Your task to perform on an android device: Open Google Chrome and open the bookmarks view Image 0: 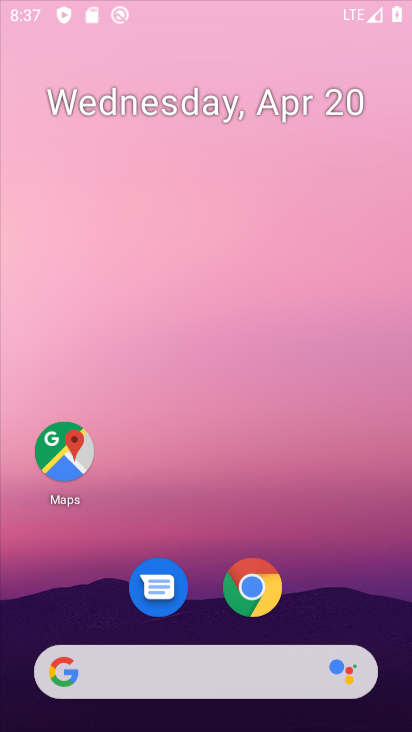
Step 0: drag from (357, 436) to (350, 253)
Your task to perform on an android device: Open Google Chrome and open the bookmarks view Image 1: 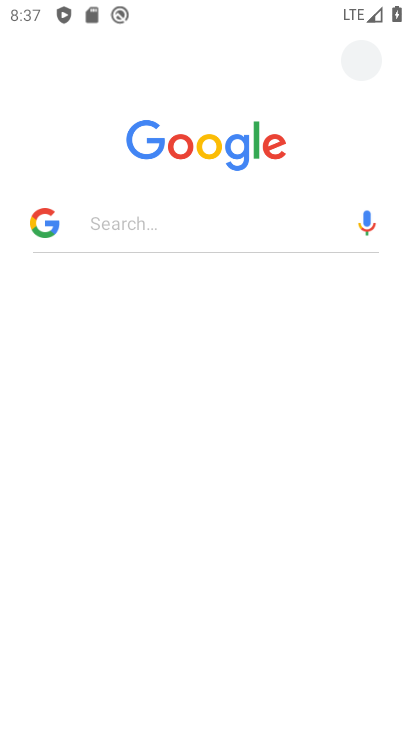
Step 1: press home button
Your task to perform on an android device: Open Google Chrome and open the bookmarks view Image 2: 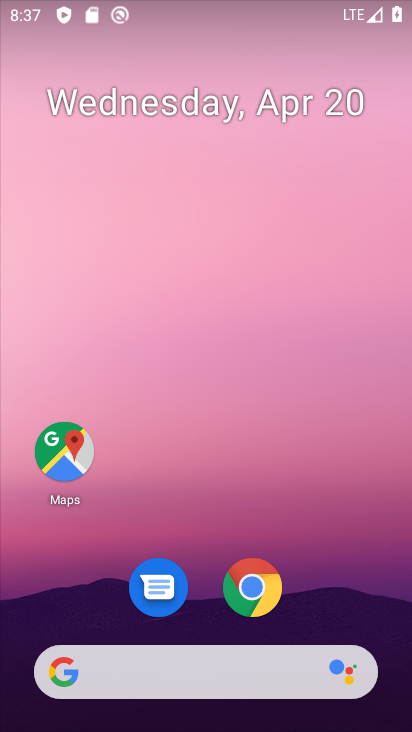
Step 2: drag from (347, 597) to (353, 249)
Your task to perform on an android device: Open Google Chrome and open the bookmarks view Image 3: 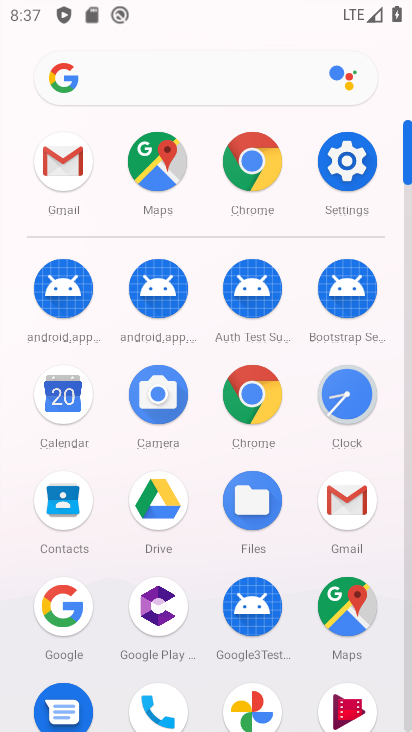
Step 3: click (260, 401)
Your task to perform on an android device: Open Google Chrome and open the bookmarks view Image 4: 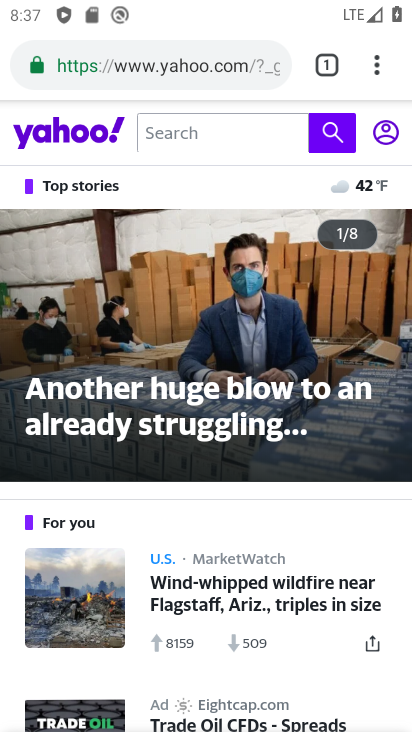
Step 4: click (378, 64)
Your task to perform on an android device: Open Google Chrome and open the bookmarks view Image 5: 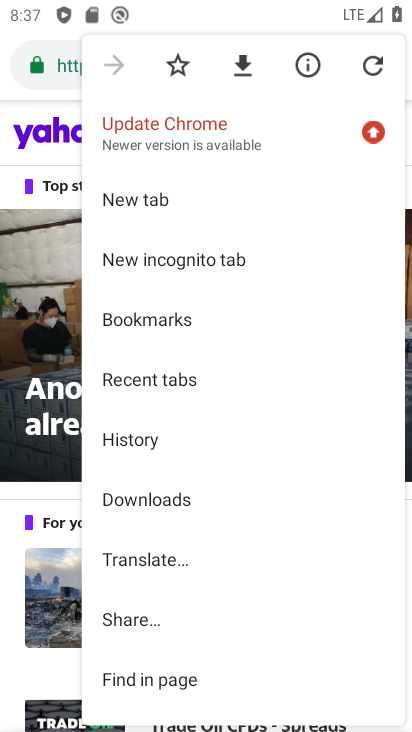
Step 5: drag from (362, 525) to (365, 394)
Your task to perform on an android device: Open Google Chrome and open the bookmarks view Image 6: 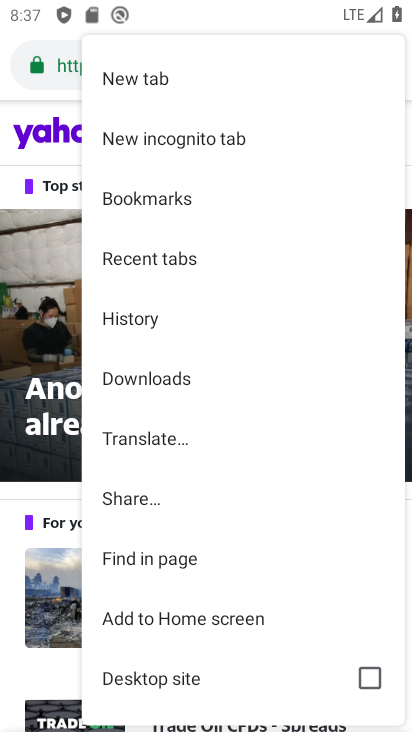
Step 6: drag from (358, 572) to (347, 368)
Your task to perform on an android device: Open Google Chrome and open the bookmarks view Image 7: 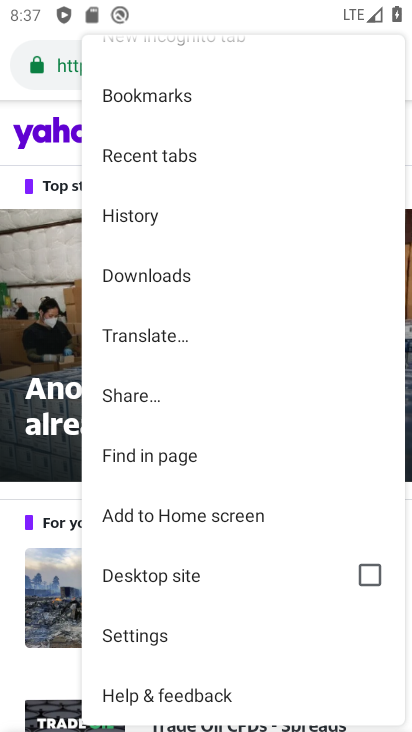
Step 7: drag from (311, 619) to (325, 437)
Your task to perform on an android device: Open Google Chrome and open the bookmarks view Image 8: 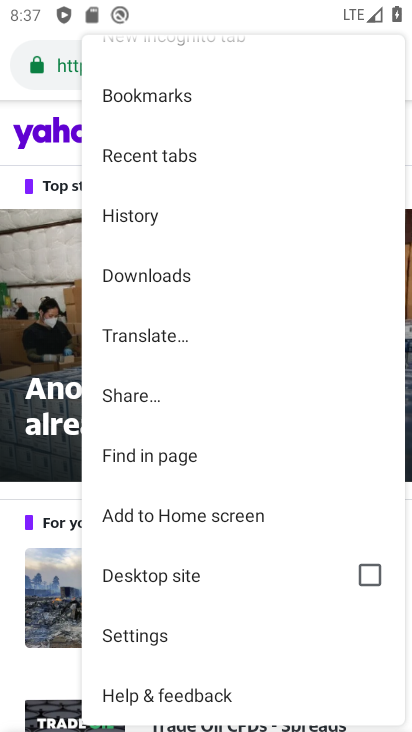
Step 8: drag from (325, 388) to (310, 475)
Your task to perform on an android device: Open Google Chrome and open the bookmarks view Image 9: 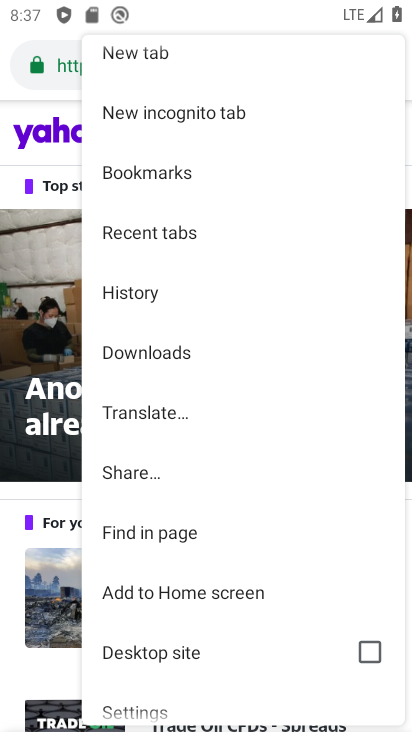
Step 9: drag from (319, 339) to (296, 494)
Your task to perform on an android device: Open Google Chrome and open the bookmarks view Image 10: 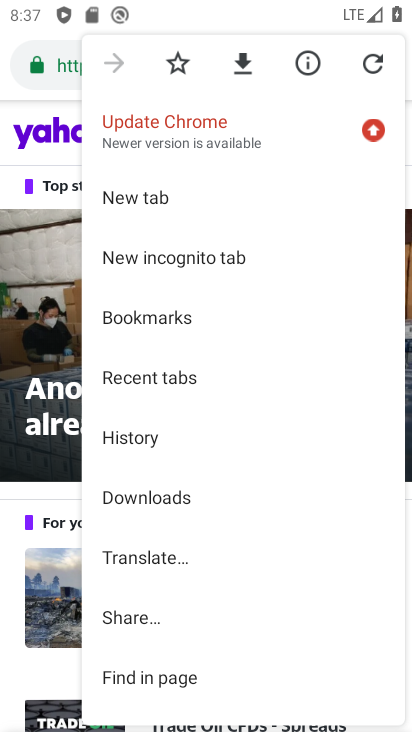
Step 10: drag from (303, 368) to (297, 492)
Your task to perform on an android device: Open Google Chrome and open the bookmarks view Image 11: 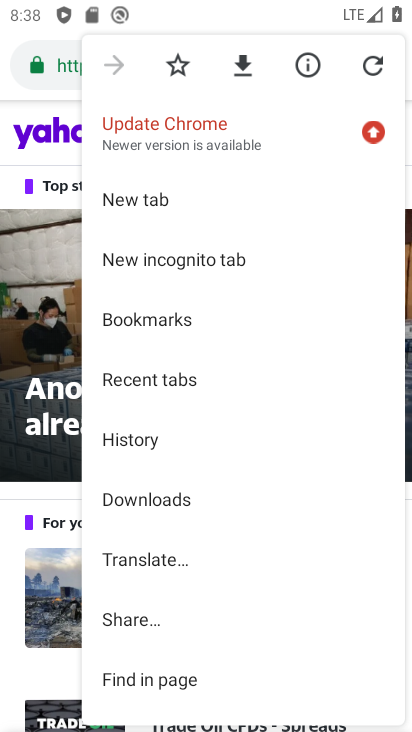
Step 11: click (206, 331)
Your task to perform on an android device: Open Google Chrome and open the bookmarks view Image 12: 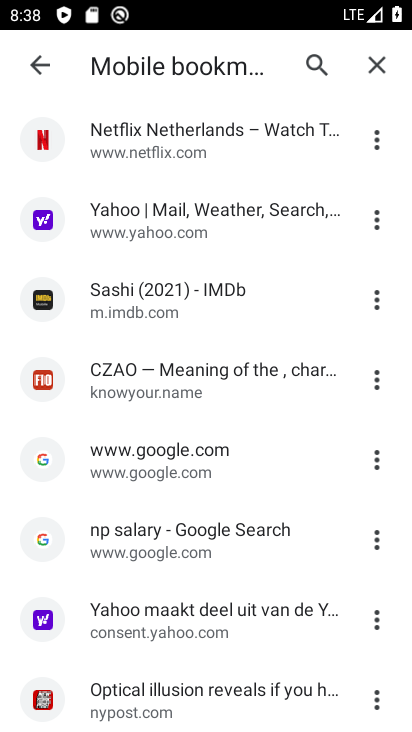
Step 12: task complete